Your task to perform on an android device: Open settings Image 0: 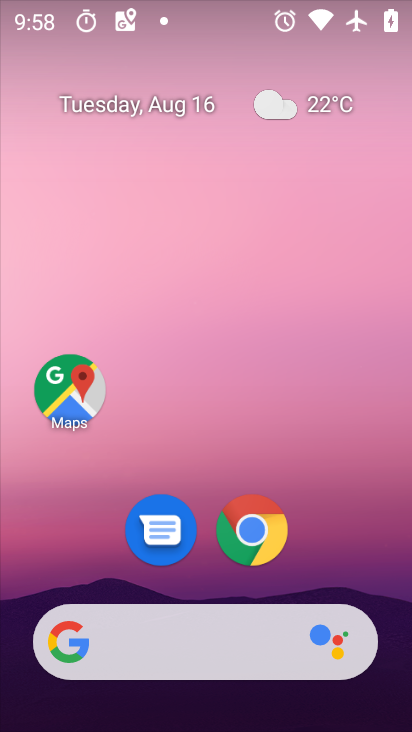
Step 0: drag from (339, 538) to (313, 168)
Your task to perform on an android device: Open settings Image 1: 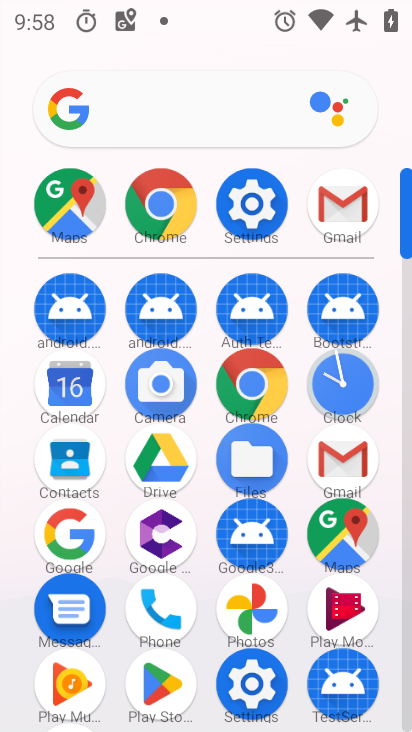
Step 1: click (262, 675)
Your task to perform on an android device: Open settings Image 2: 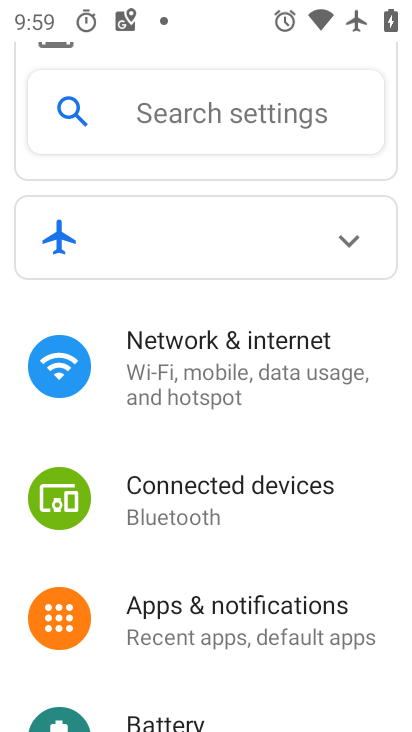
Step 2: task complete